Your task to perform on an android device: set the stopwatch Image 0: 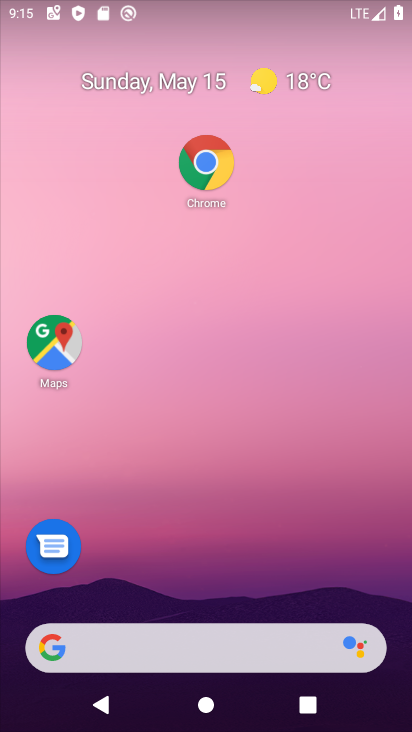
Step 0: drag from (260, 594) to (305, 287)
Your task to perform on an android device: set the stopwatch Image 1: 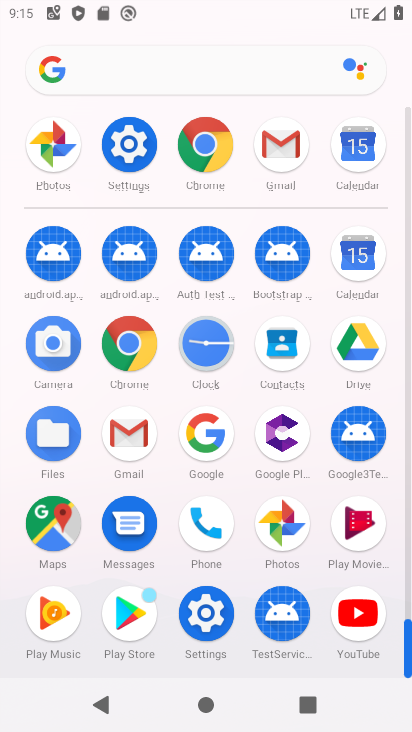
Step 1: click (193, 345)
Your task to perform on an android device: set the stopwatch Image 2: 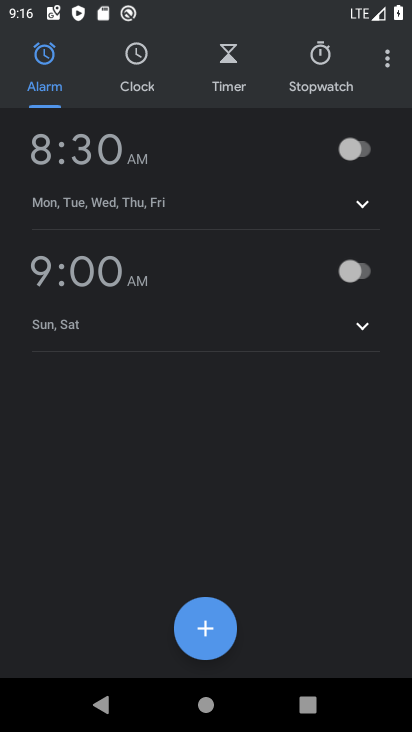
Step 2: click (303, 61)
Your task to perform on an android device: set the stopwatch Image 3: 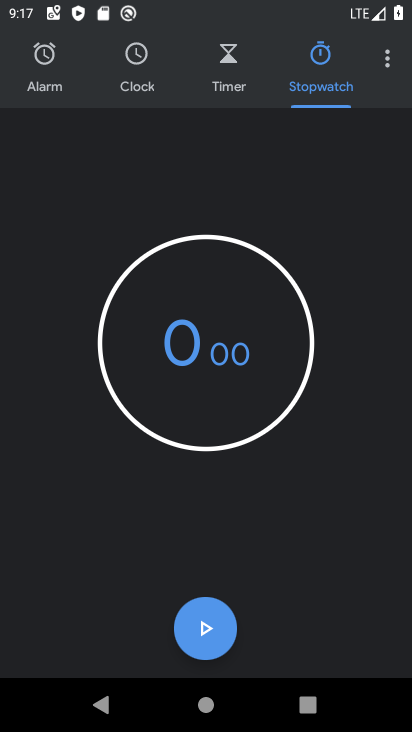
Step 3: task complete